Your task to perform on an android device: empty trash in google photos Image 0: 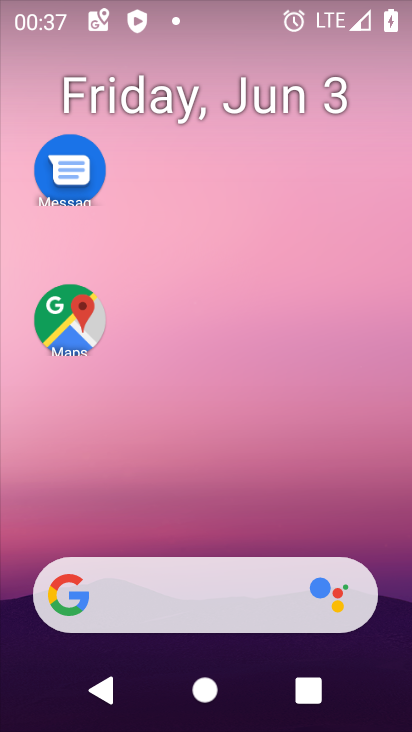
Step 0: press home button
Your task to perform on an android device: empty trash in google photos Image 1: 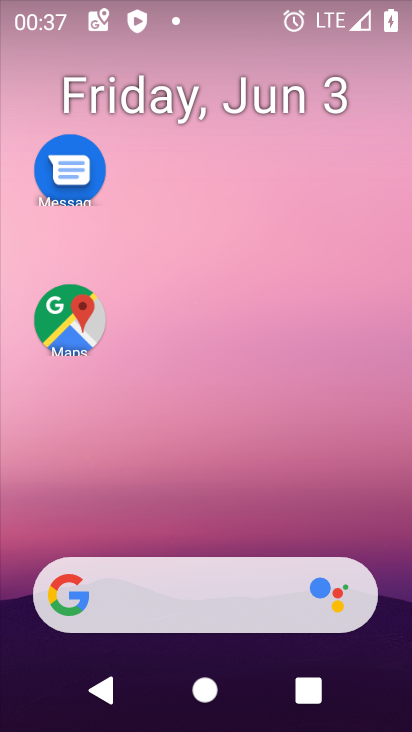
Step 1: drag from (305, 557) to (321, 85)
Your task to perform on an android device: empty trash in google photos Image 2: 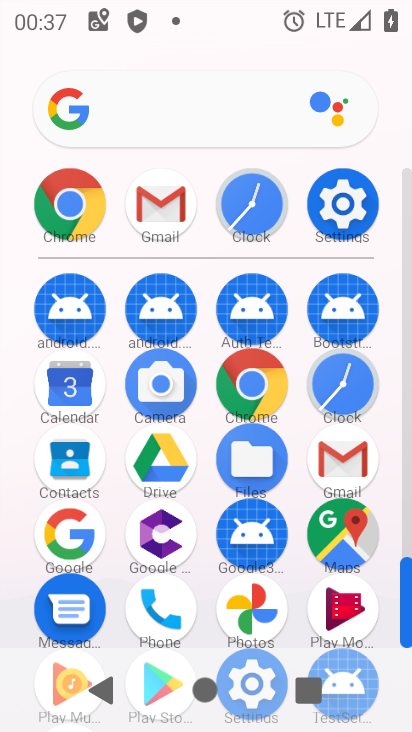
Step 2: click (243, 623)
Your task to perform on an android device: empty trash in google photos Image 3: 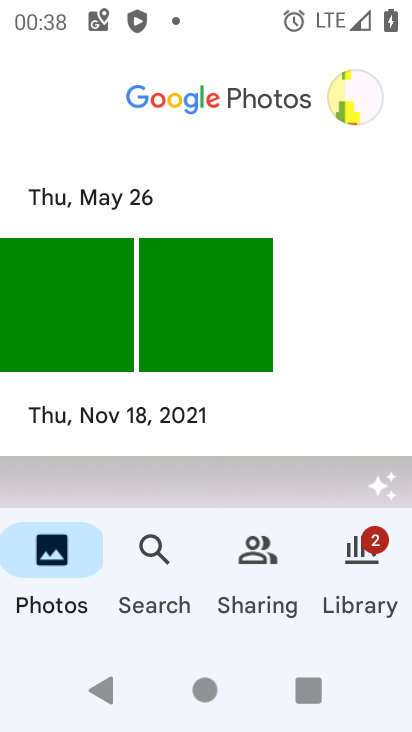
Step 3: click (353, 92)
Your task to perform on an android device: empty trash in google photos Image 4: 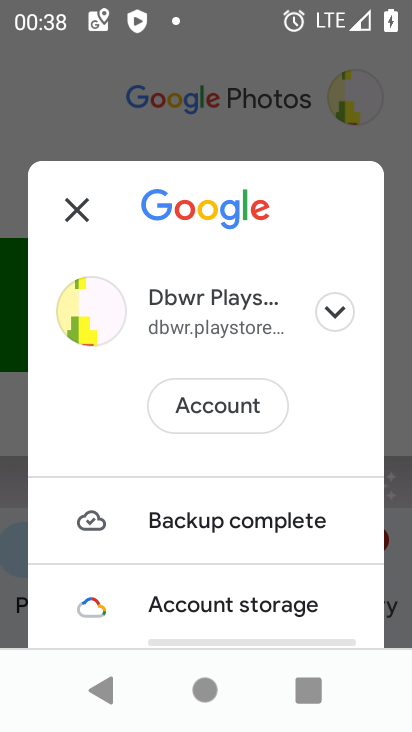
Step 4: drag from (210, 579) to (178, 448)
Your task to perform on an android device: empty trash in google photos Image 5: 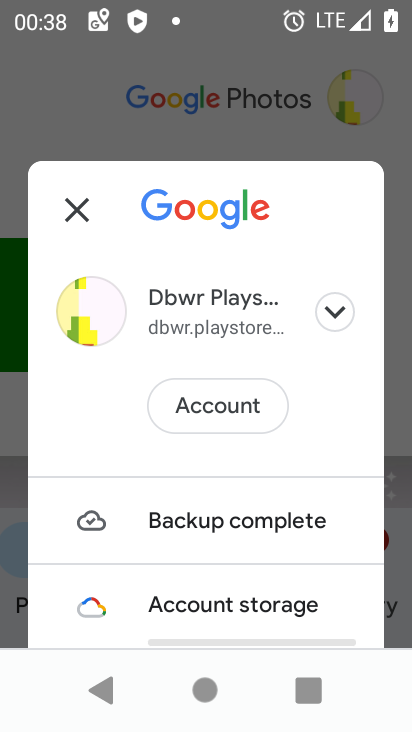
Step 5: click (148, 57)
Your task to perform on an android device: empty trash in google photos Image 6: 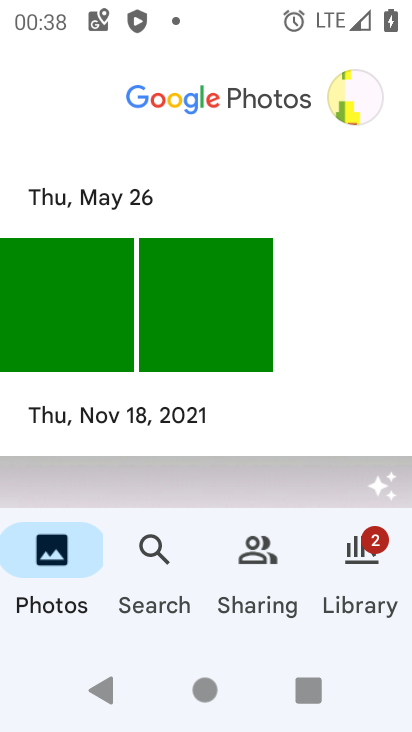
Step 6: click (371, 592)
Your task to perform on an android device: empty trash in google photos Image 7: 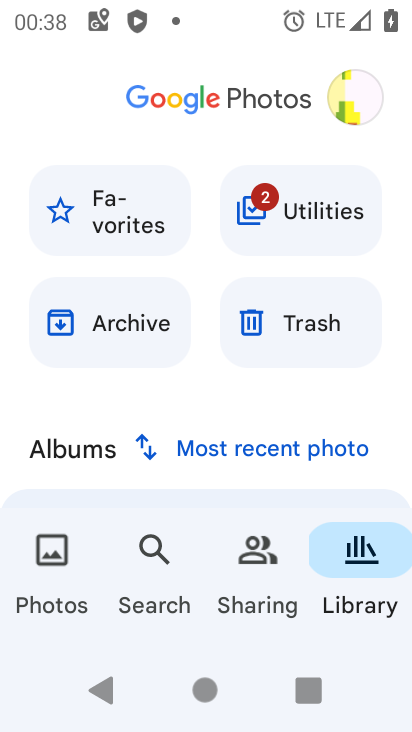
Step 7: click (264, 321)
Your task to perform on an android device: empty trash in google photos Image 8: 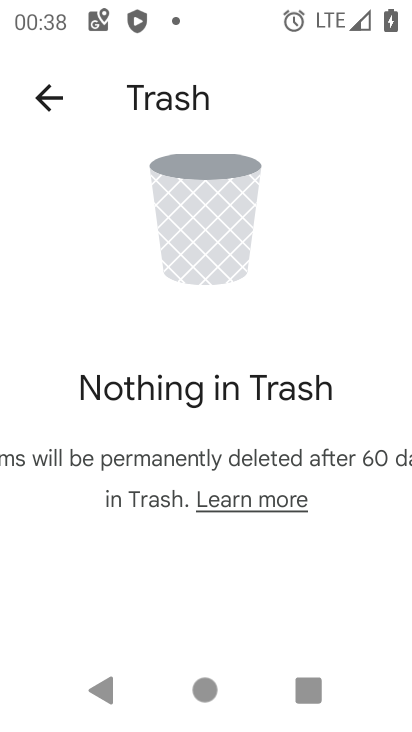
Step 8: task complete